Your task to perform on an android device: add a contact Image 0: 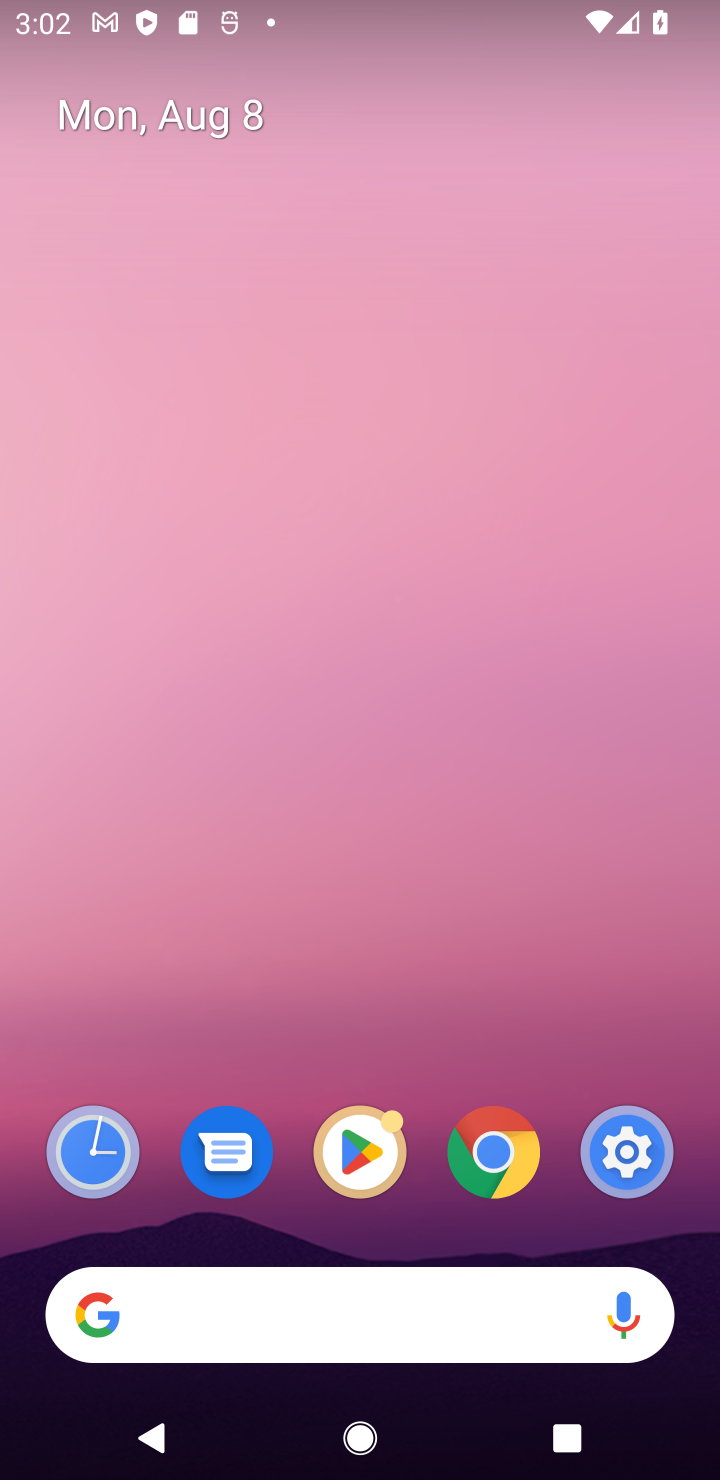
Step 0: drag from (380, 1247) to (578, 19)
Your task to perform on an android device: add a contact Image 1: 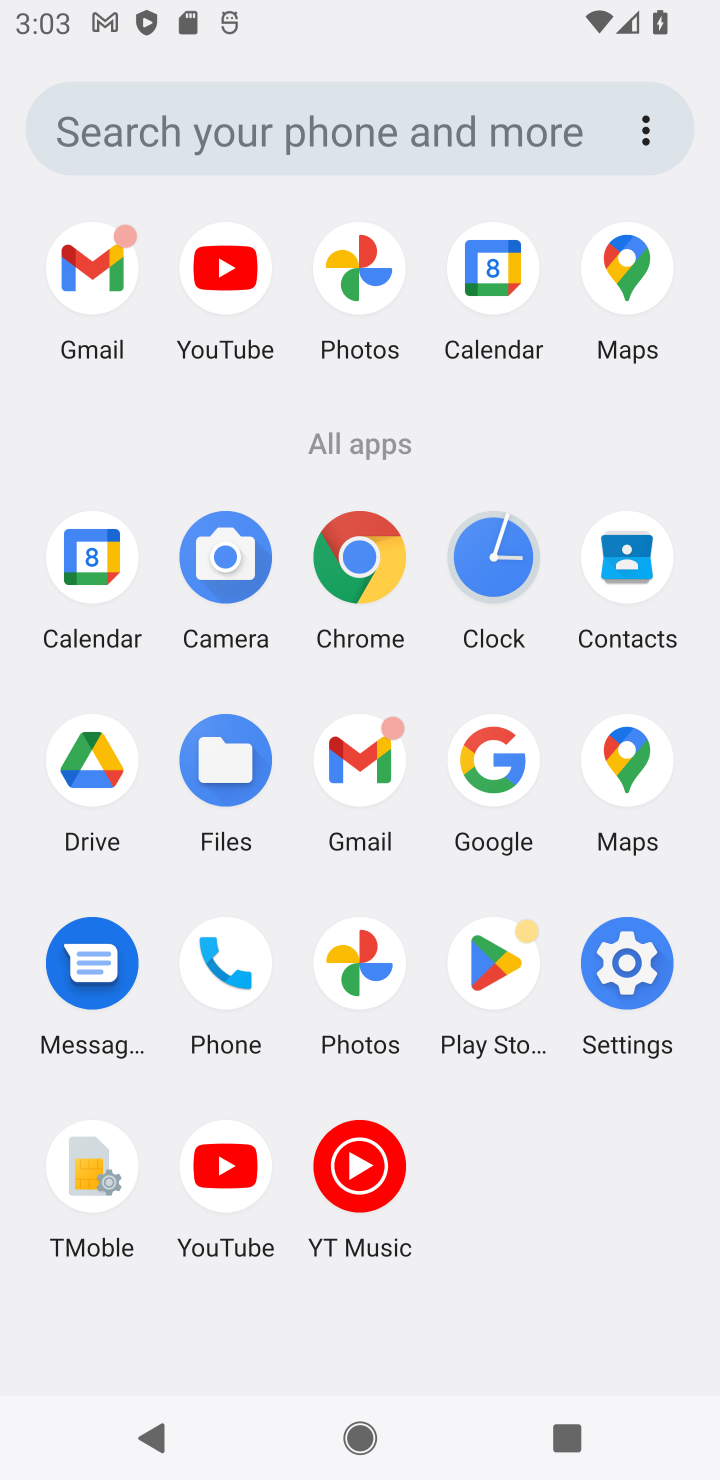
Step 1: click (621, 599)
Your task to perform on an android device: add a contact Image 2: 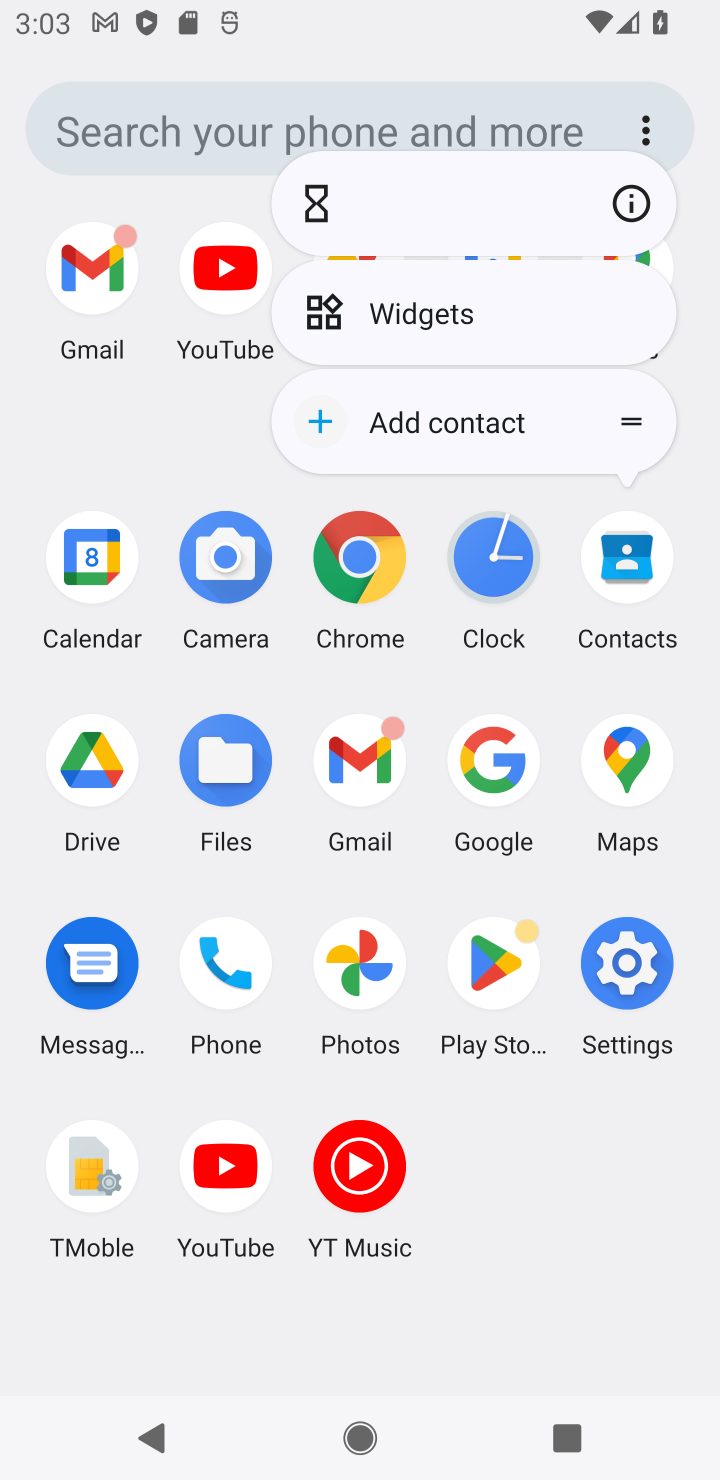
Step 2: click (619, 597)
Your task to perform on an android device: add a contact Image 3: 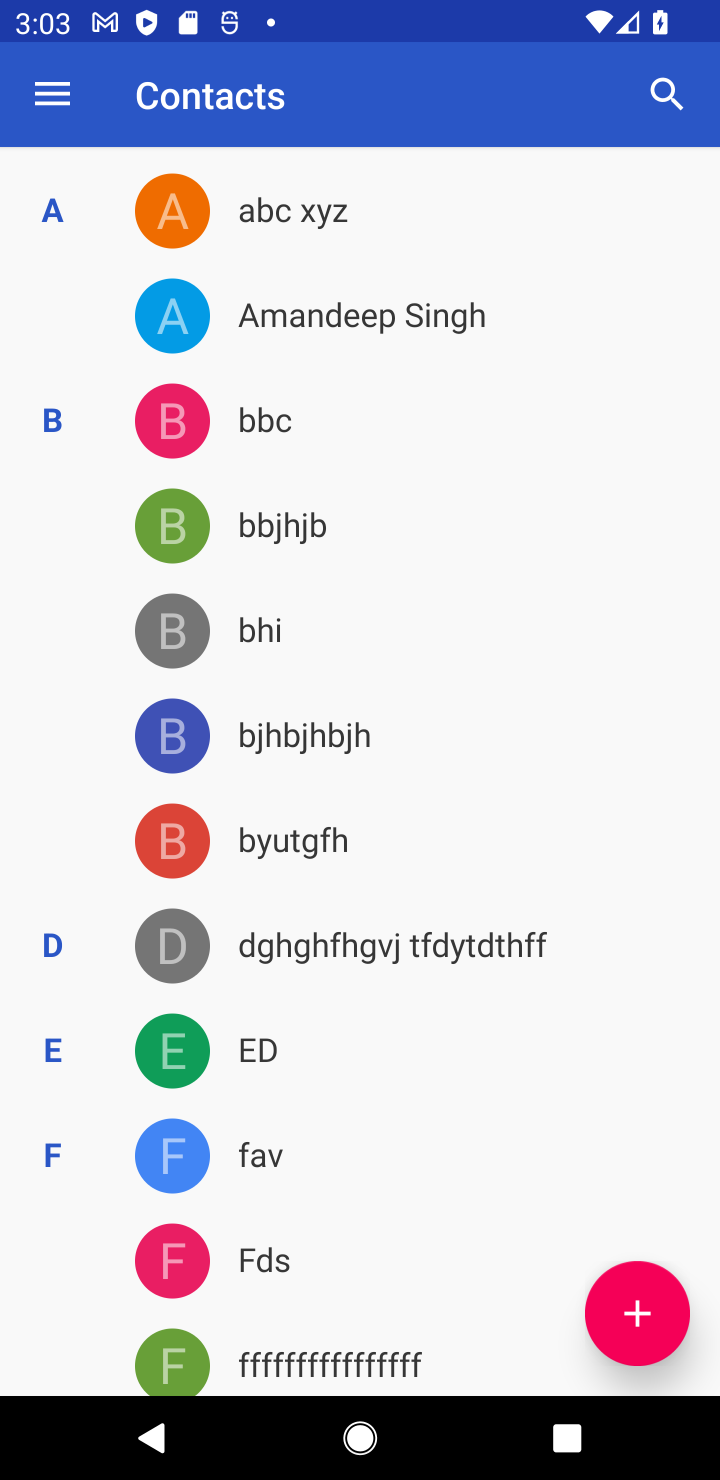
Step 3: click (636, 1297)
Your task to perform on an android device: add a contact Image 4: 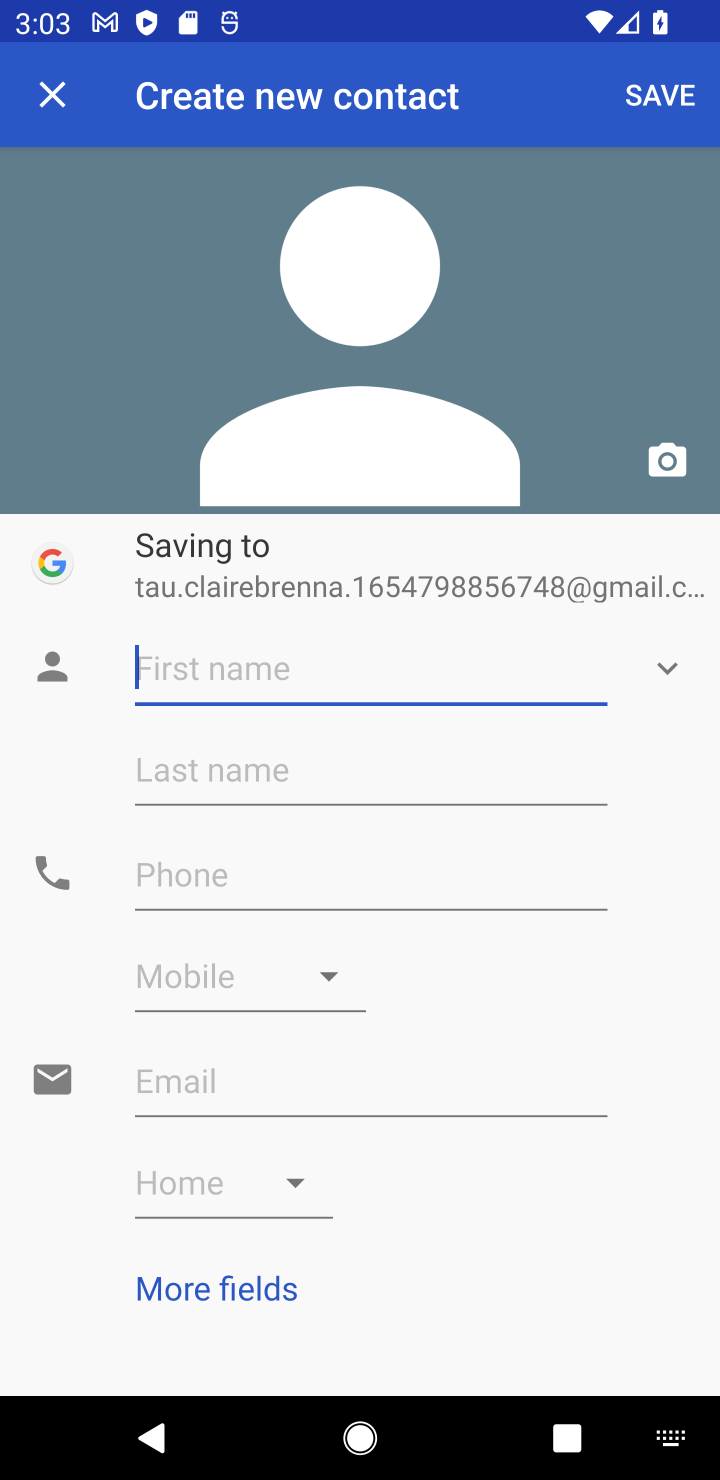
Step 4: type "cloat"
Your task to perform on an android device: add a contact Image 5: 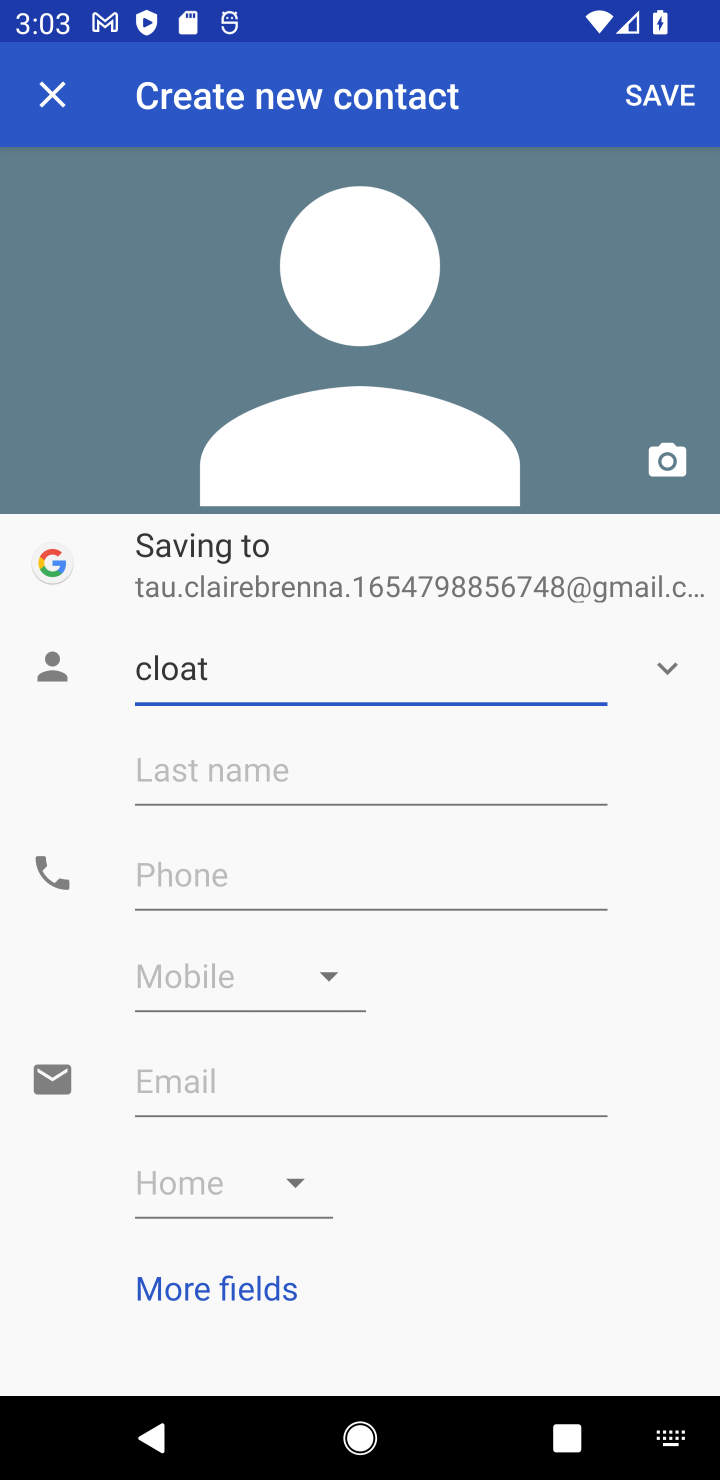
Step 5: click (655, 82)
Your task to perform on an android device: add a contact Image 6: 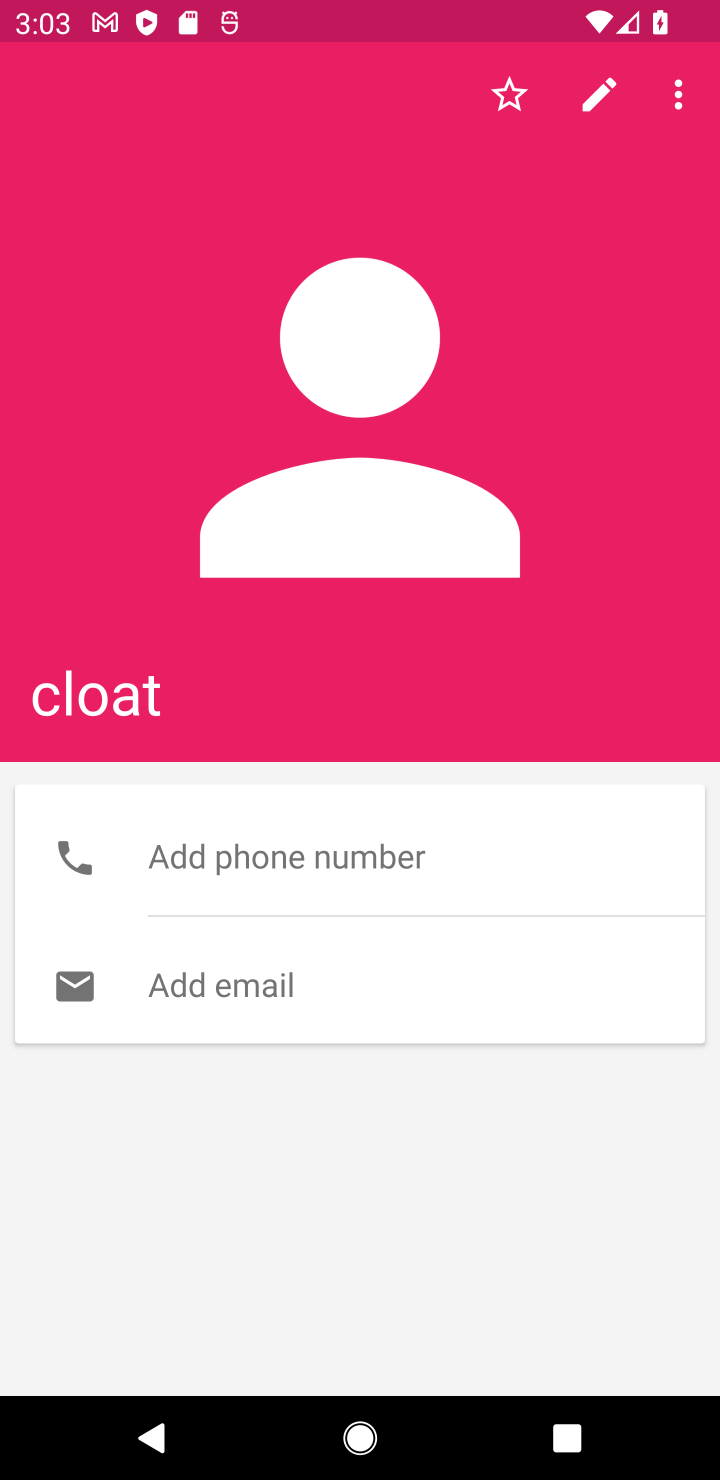
Step 6: task complete